Your task to perform on an android device: Go to network settings Image 0: 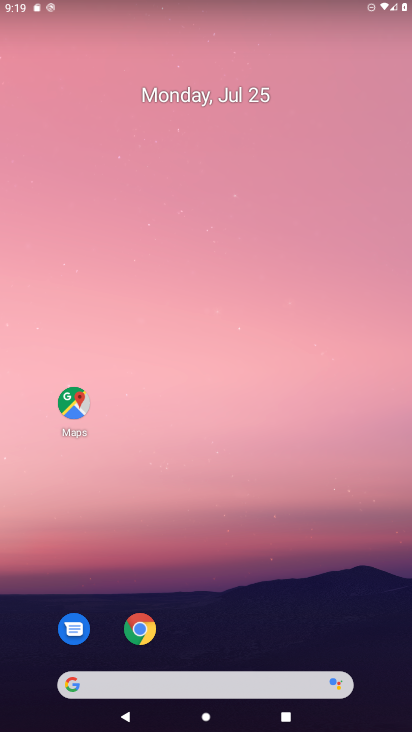
Step 0: drag from (284, 658) to (295, 4)
Your task to perform on an android device: Go to network settings Image 1: 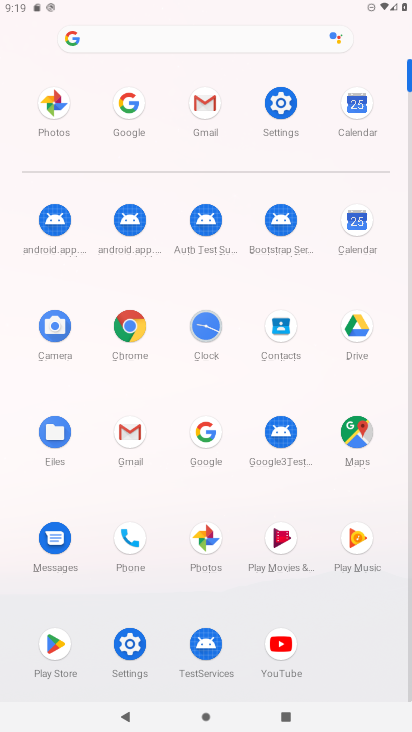
Step 1: click (279, 104)
Your task to perform on an android device: Go to network settings Image 2: 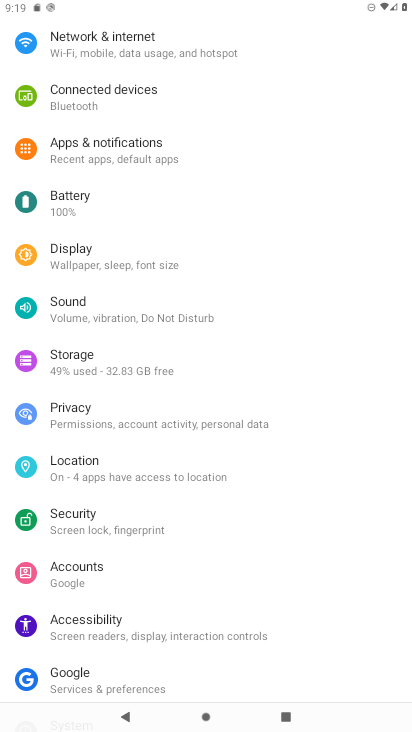
Step 2: click (100, 47)
Your task to perform on an android device: Go to network settings Image 3: 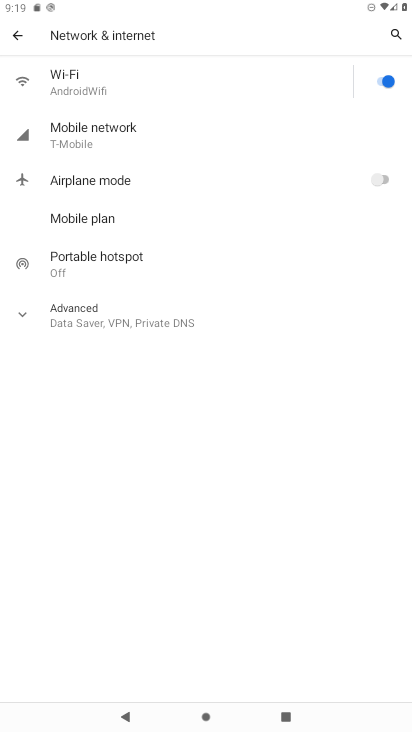
Step 3: click (82, 134)
Your task to perform on an android device: Go to network settings Image 4: 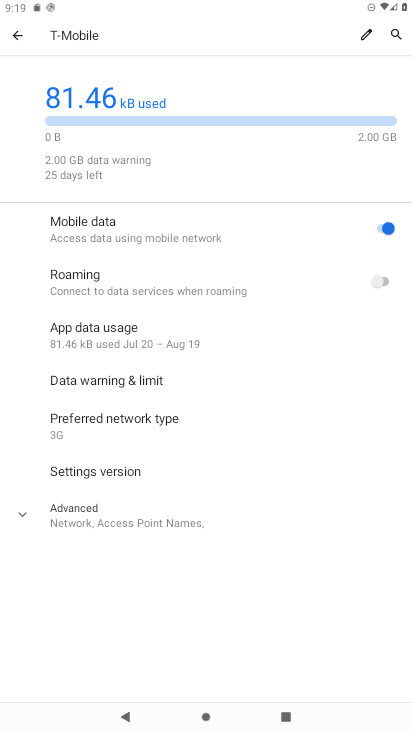
Step 4: click (22, 511)
Your task to perform on an android device: Go to network settings Image 5: 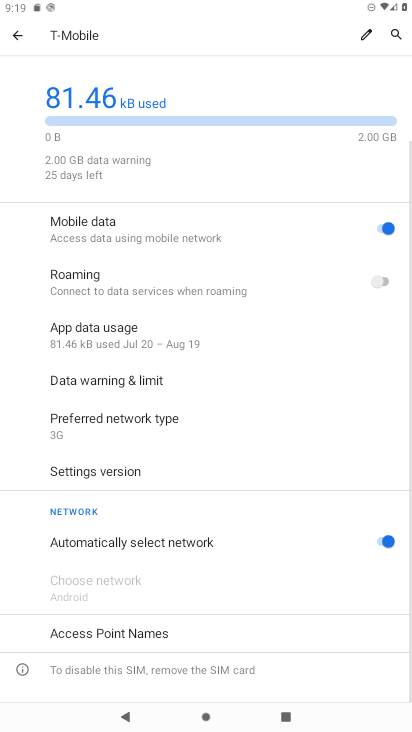
Step 5: task complete